Your task to perform on an android device: How do I get to the nearest Home Depot? Image 0: 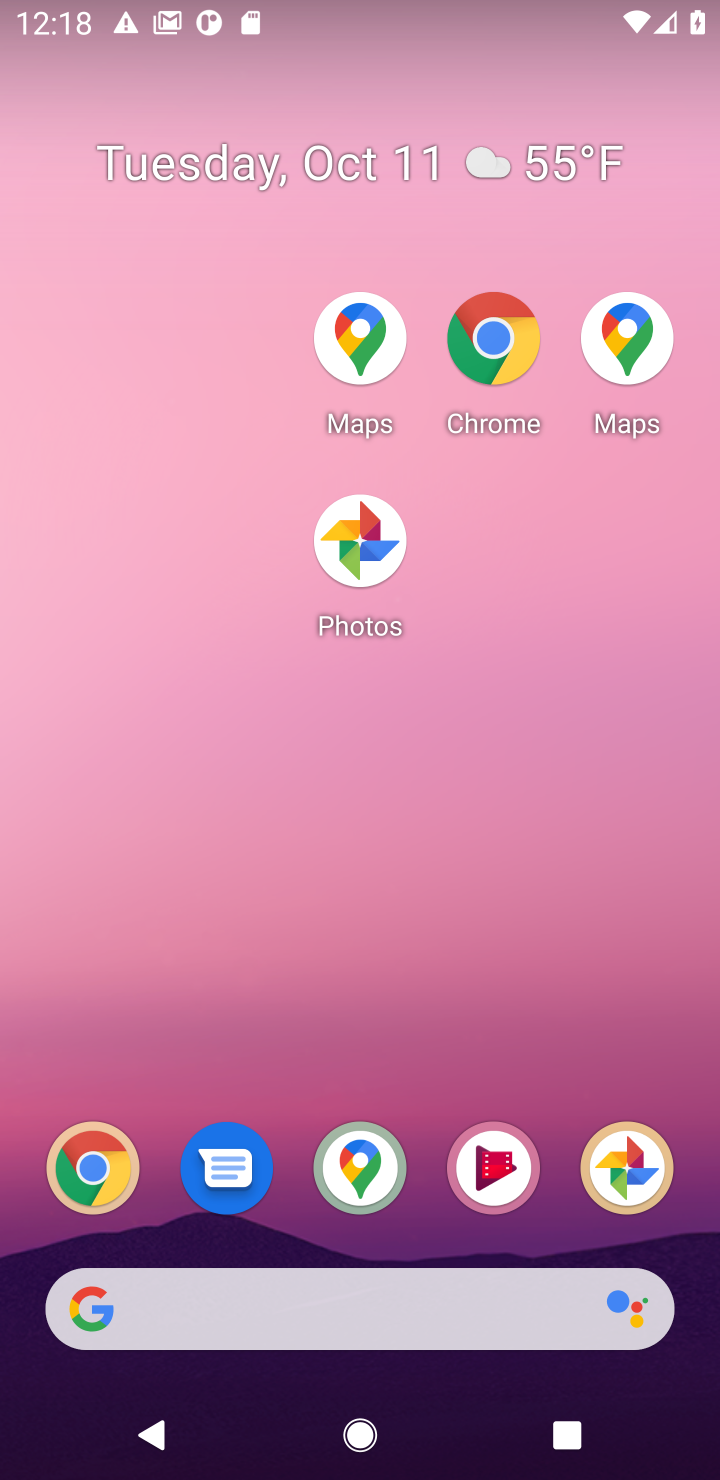
Step 0: drag from (438, 1055) to (411, 416)
Your task to perform on an android device: How do I get to the nearest Home Depot? Image 1: 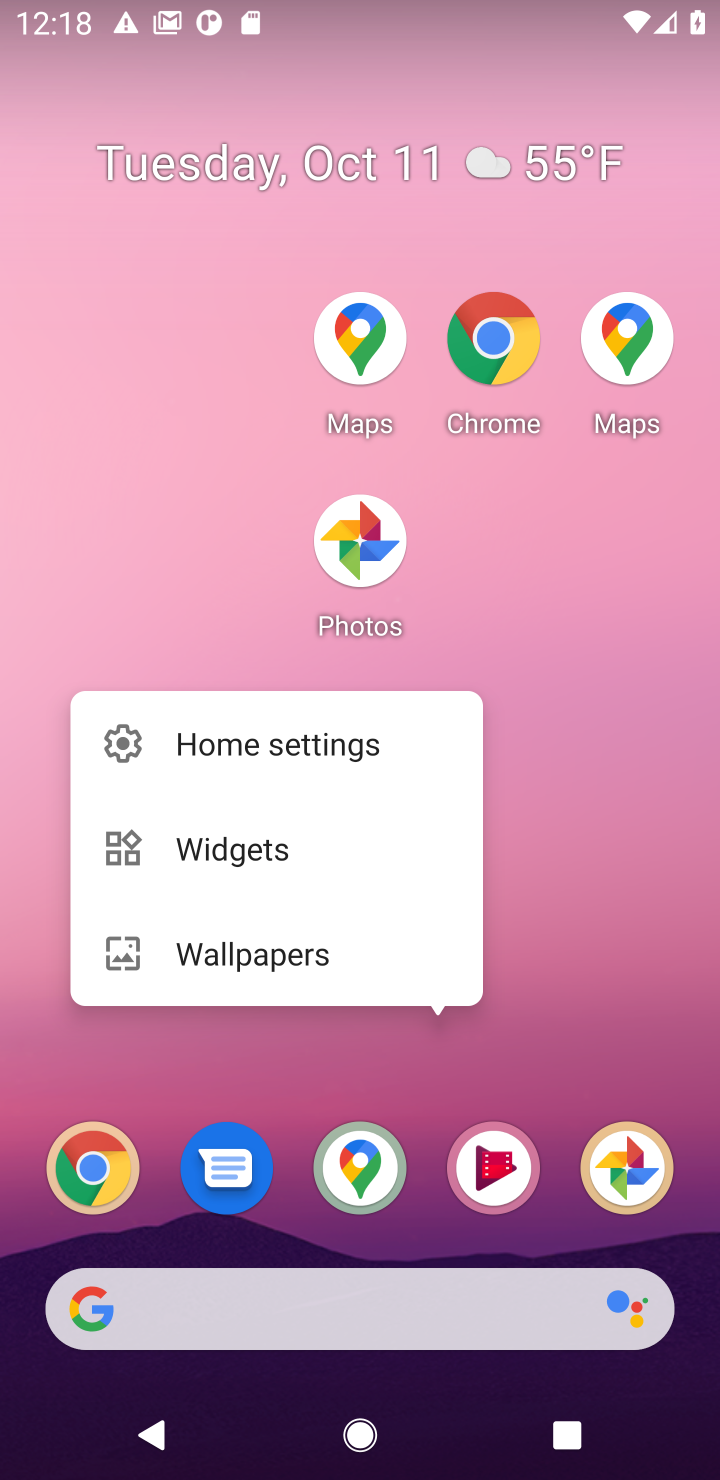
Step 1: click (609, 886)
Your task to perform on an android device: How do I get to the nearest Home Depot? Image 2: 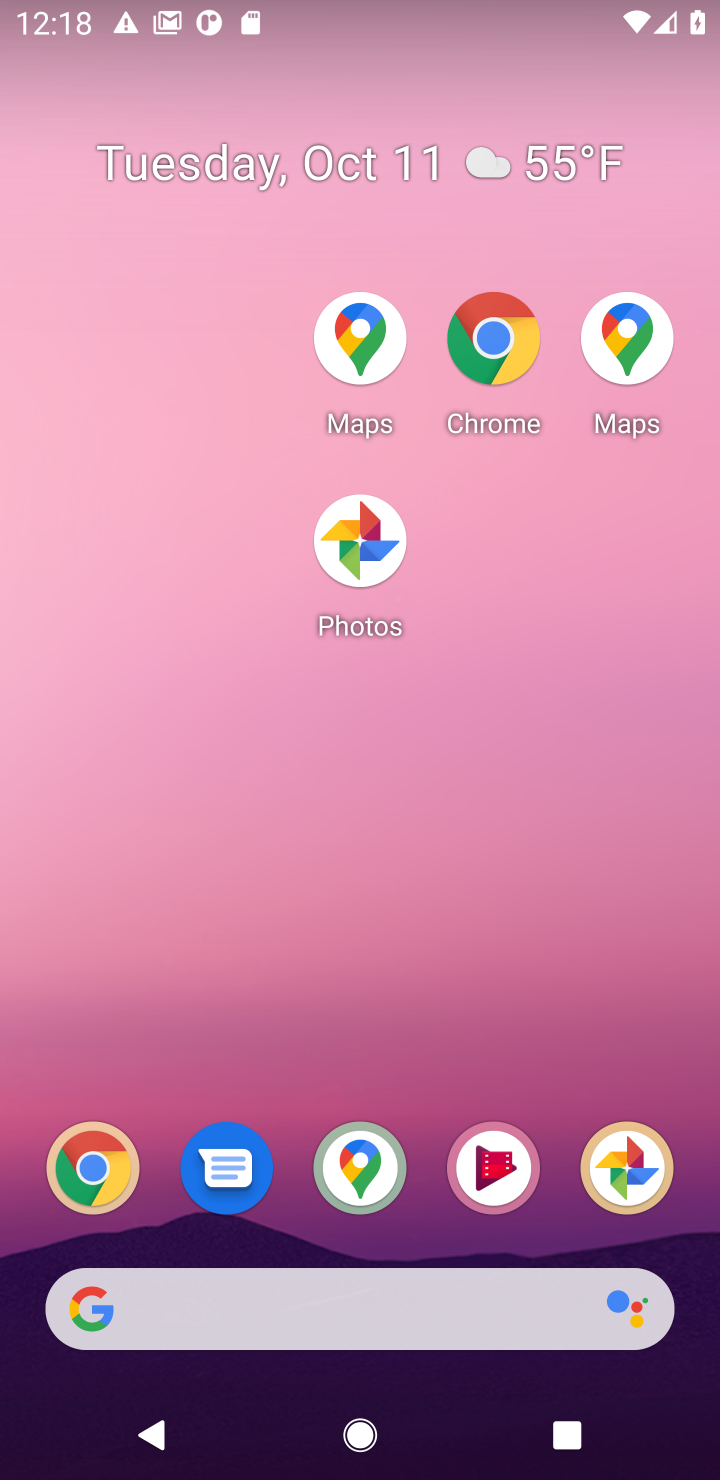
Step 2: click (455, 989)
Your task to perform on an android device: How do I get to the nearest Home Depot? Image 3: 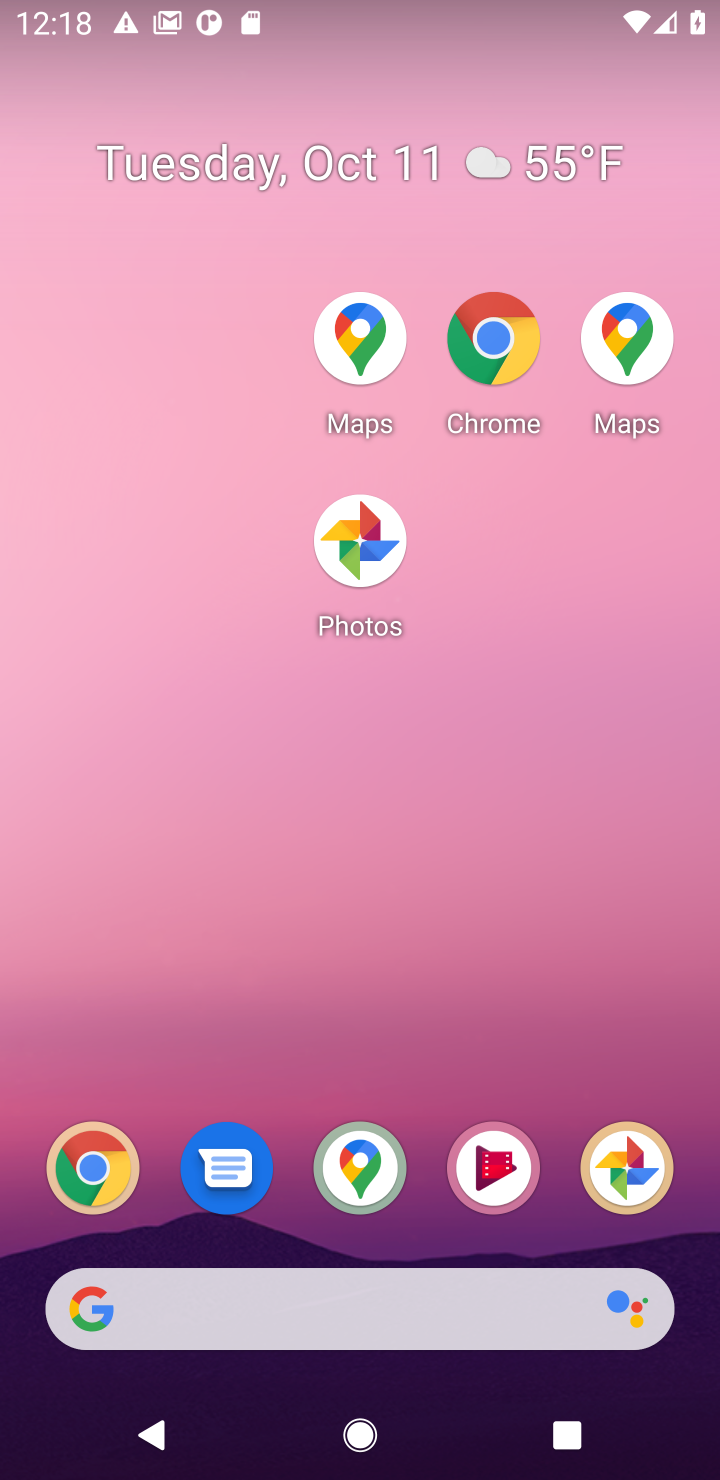
Step 3: click (455, 989)
Your task to perform on an android device: How do I get to the nearest Home Depot? Image 4: 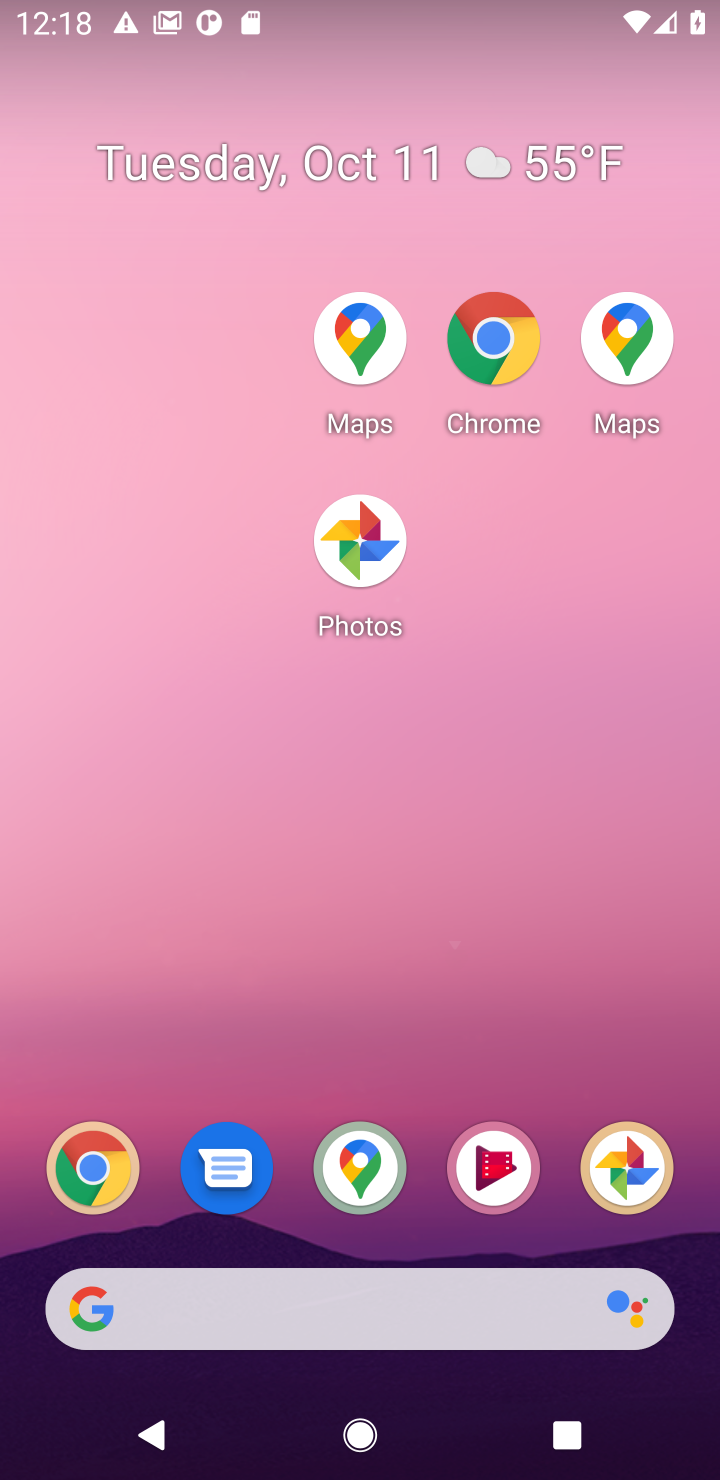
Step 4: drag from (393, 1037) to (515, 270)
Your task to perform on an android device: How do I get to the nearest Home Depot? Image 5: 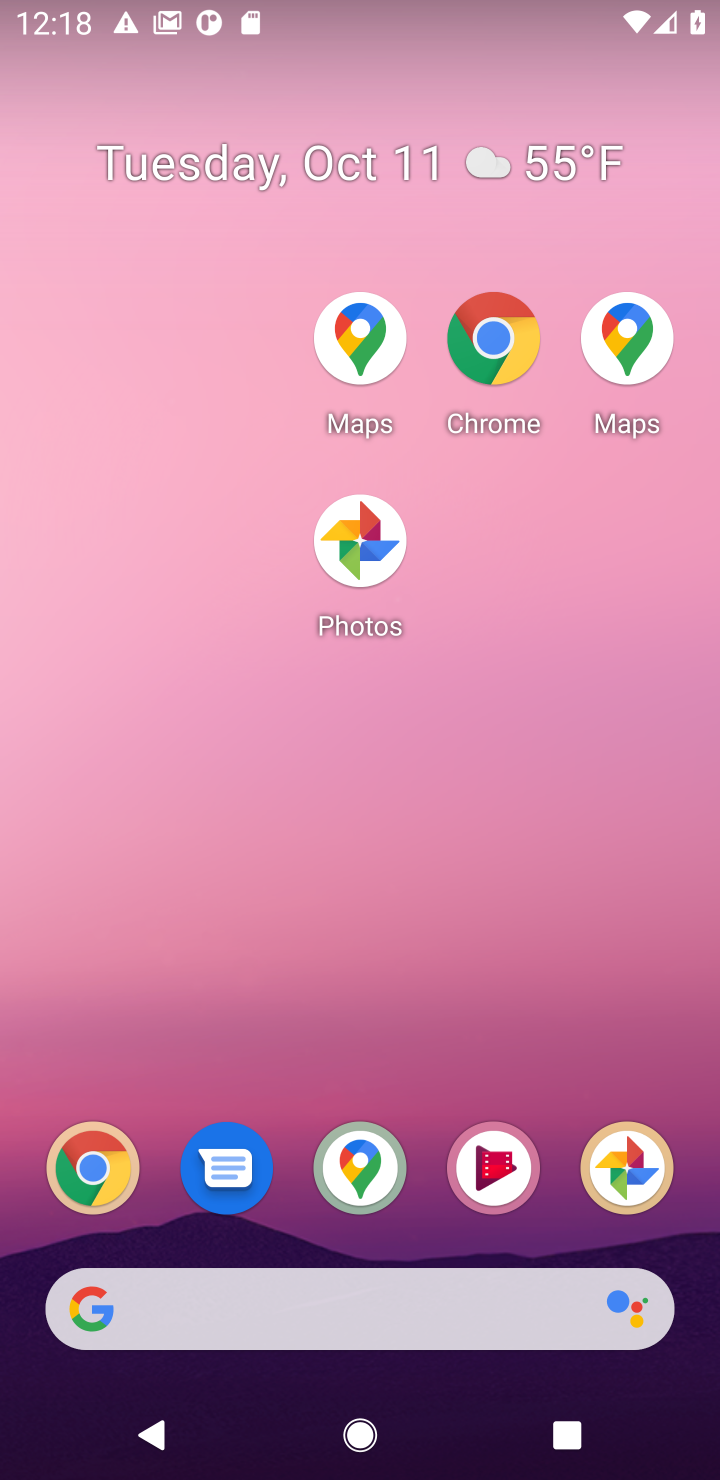
Step 5: drag from (489, 968) to (480, 369)
Your task to perform on an android device: How do I get to the nearest Home Depot? Image 6: 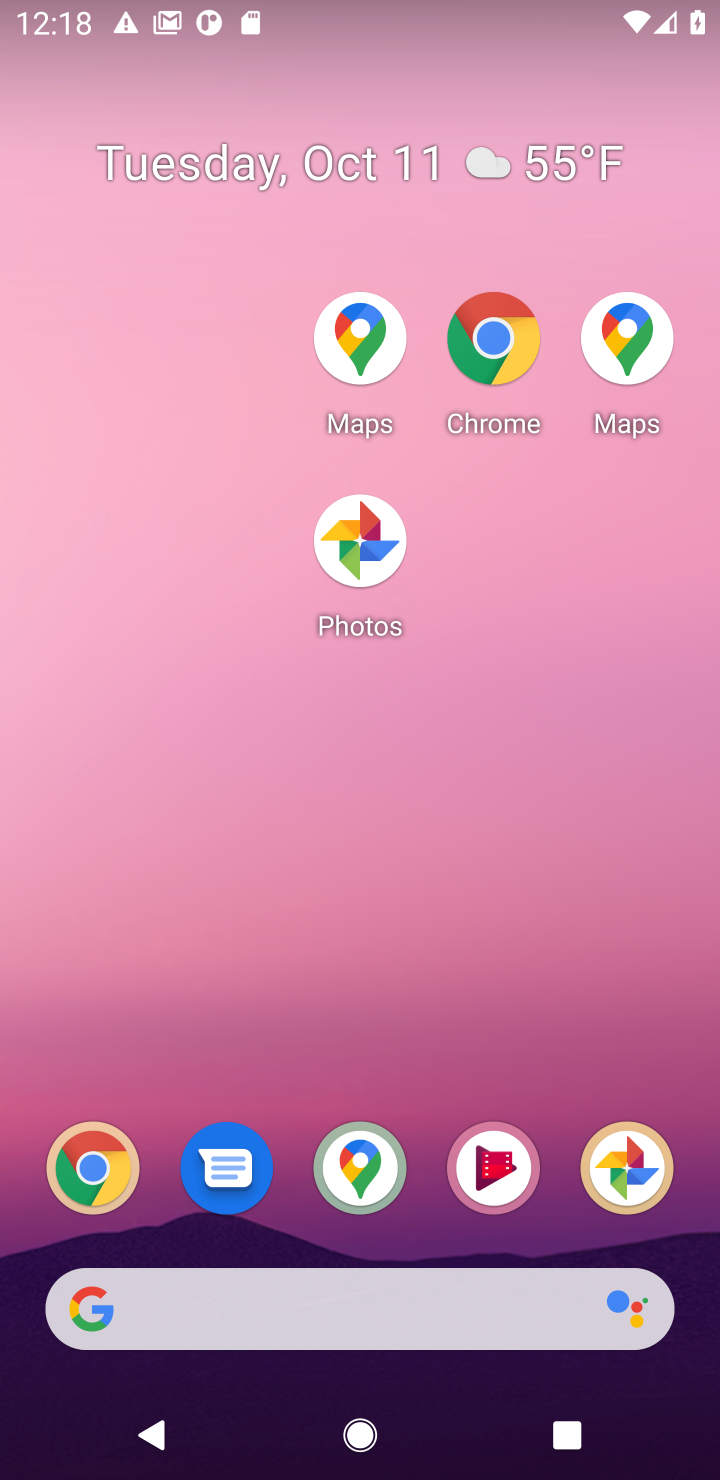
Step 6: drag from (445, 1013) to (485, 394)
Your task to perform on an android device: How do I get to the nearest Home Depot? Image 7: 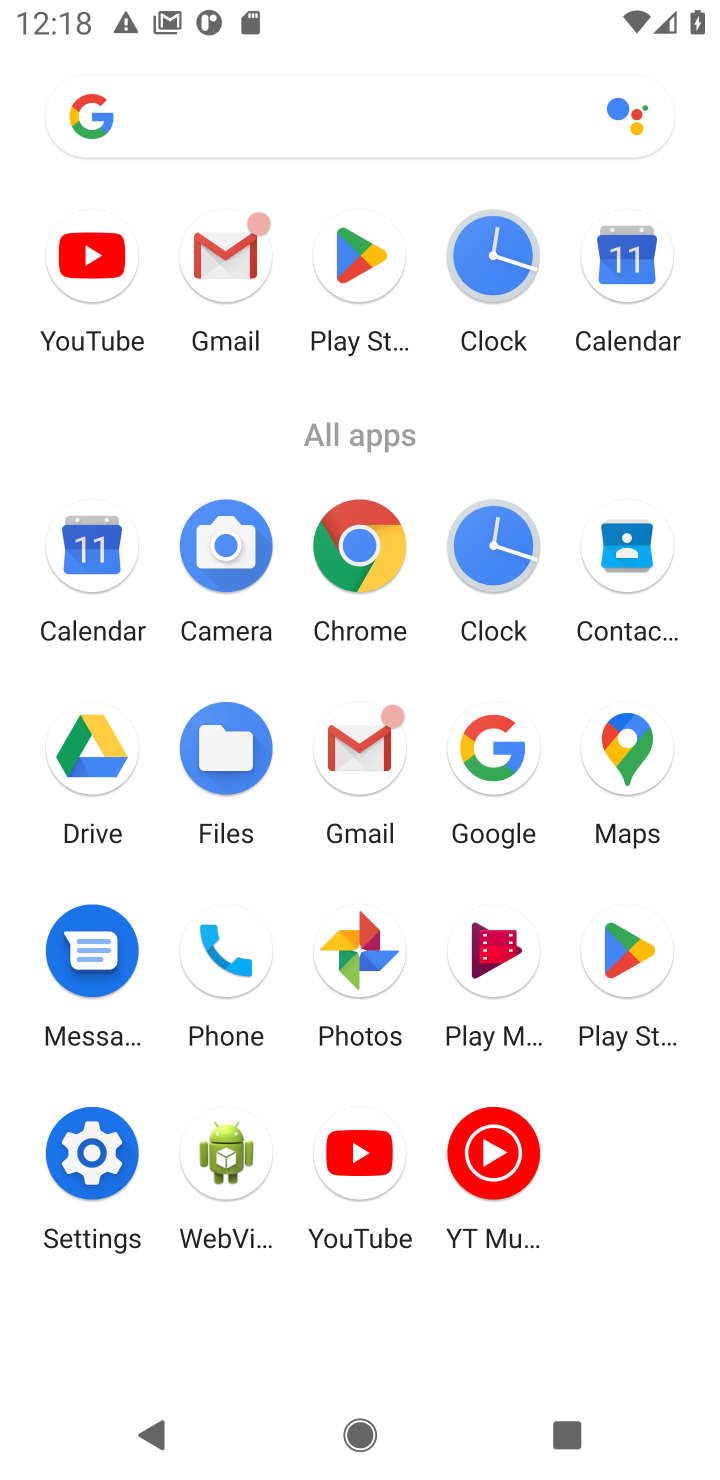
Step 7: click (487, 788)
Your task to perform on an android device: How do I get to the nearest Home Depot? Image 8: 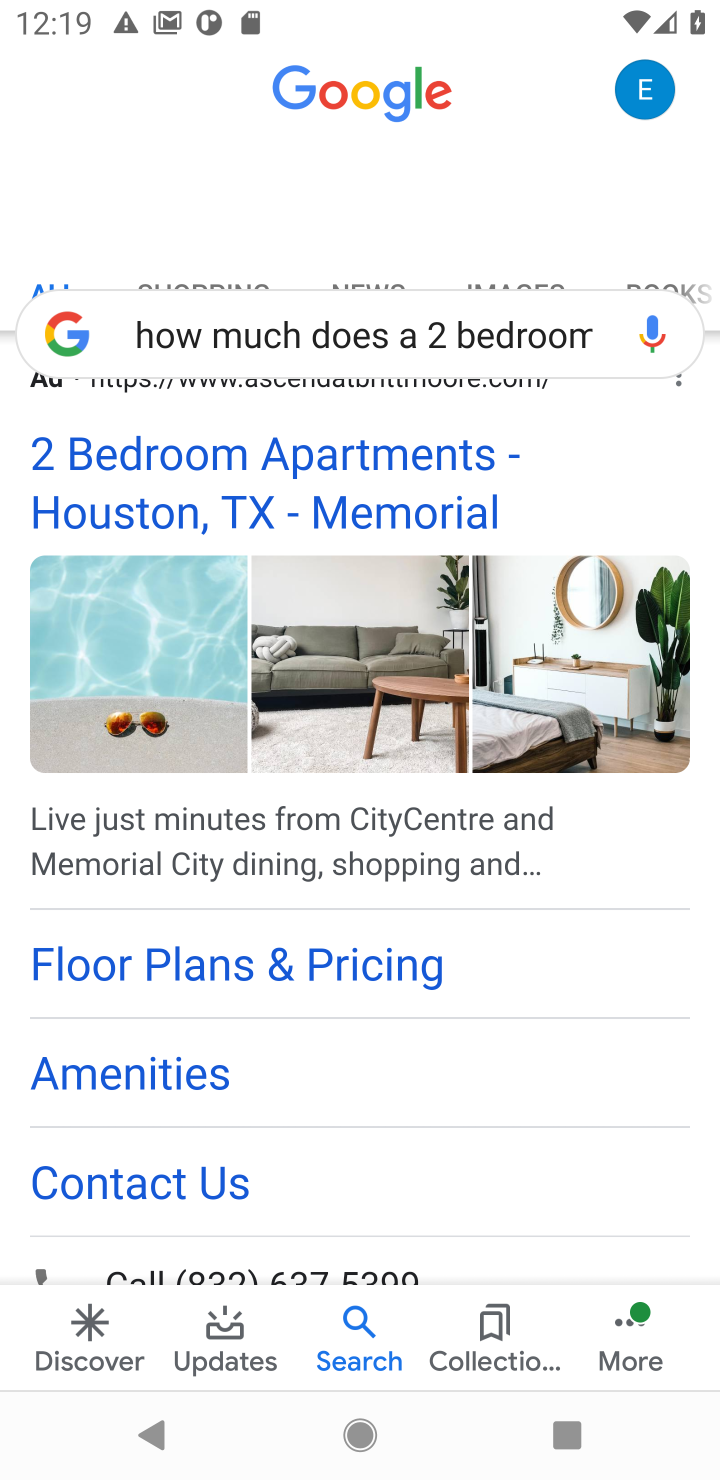
Step 8: click (497, 338)
Your task to perform on an android device: How do I get to the nearest Home Depot? Image 9: 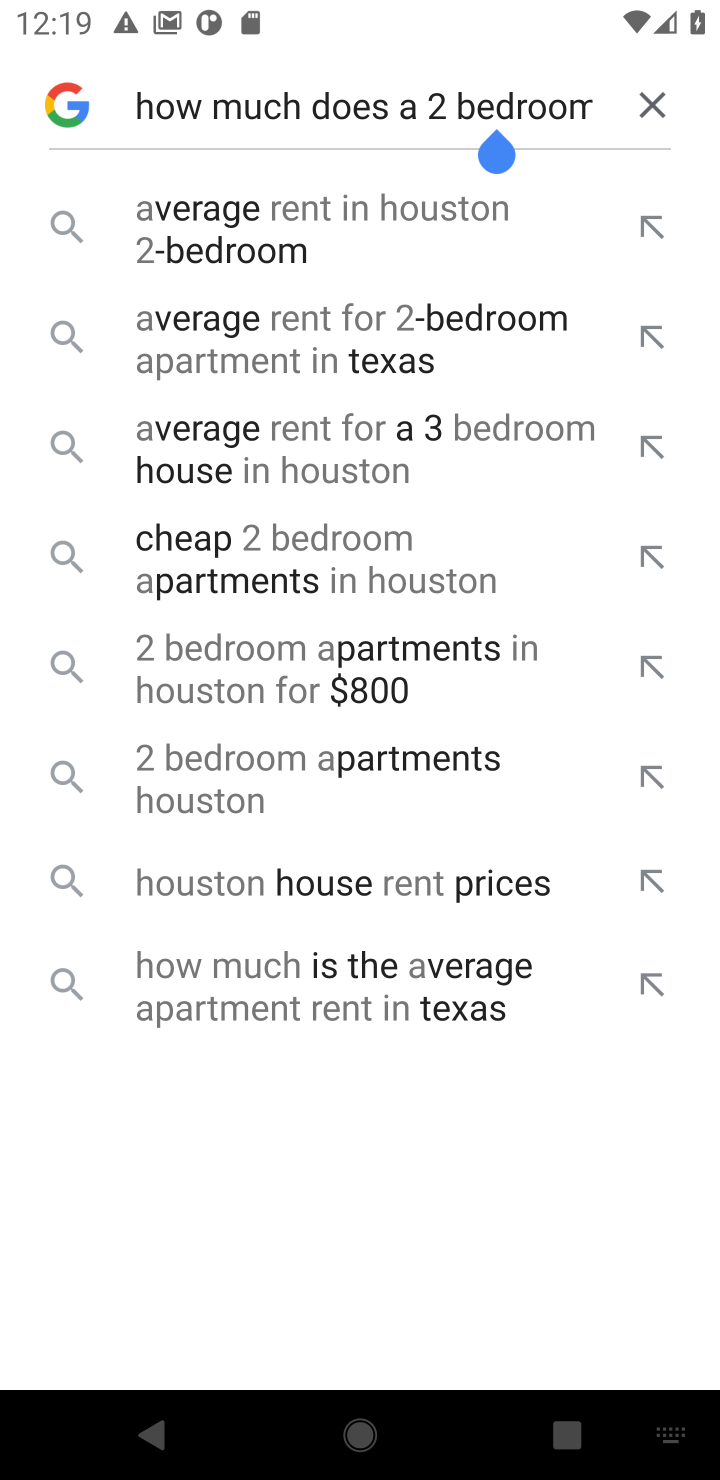
Step 9: click (652, 101)
Your task to perform on an android device: How do I get to the nearest Home Depot? Image 10: 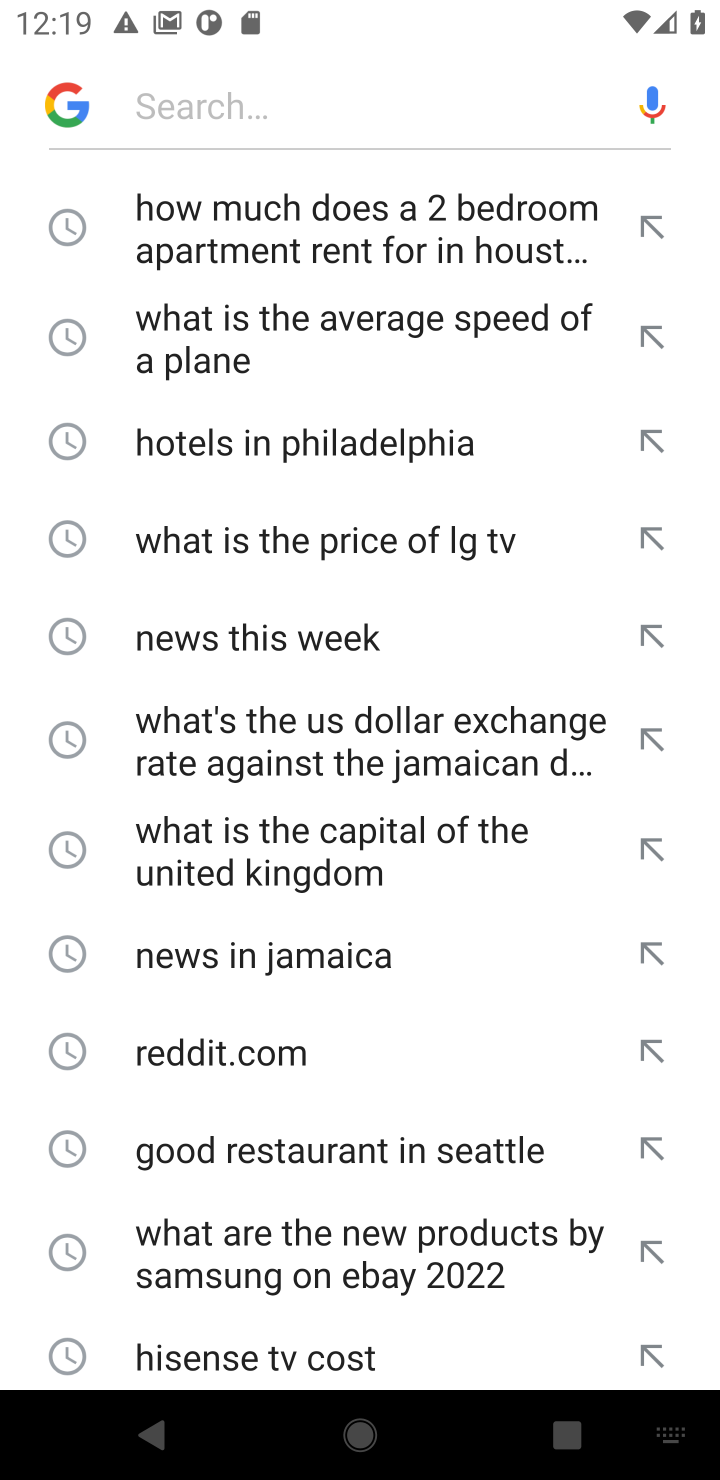
Step 10: type "nearest Home Depot"
Your task to perform on an android device: How do I get to the nearest Home Depot? Image 11: 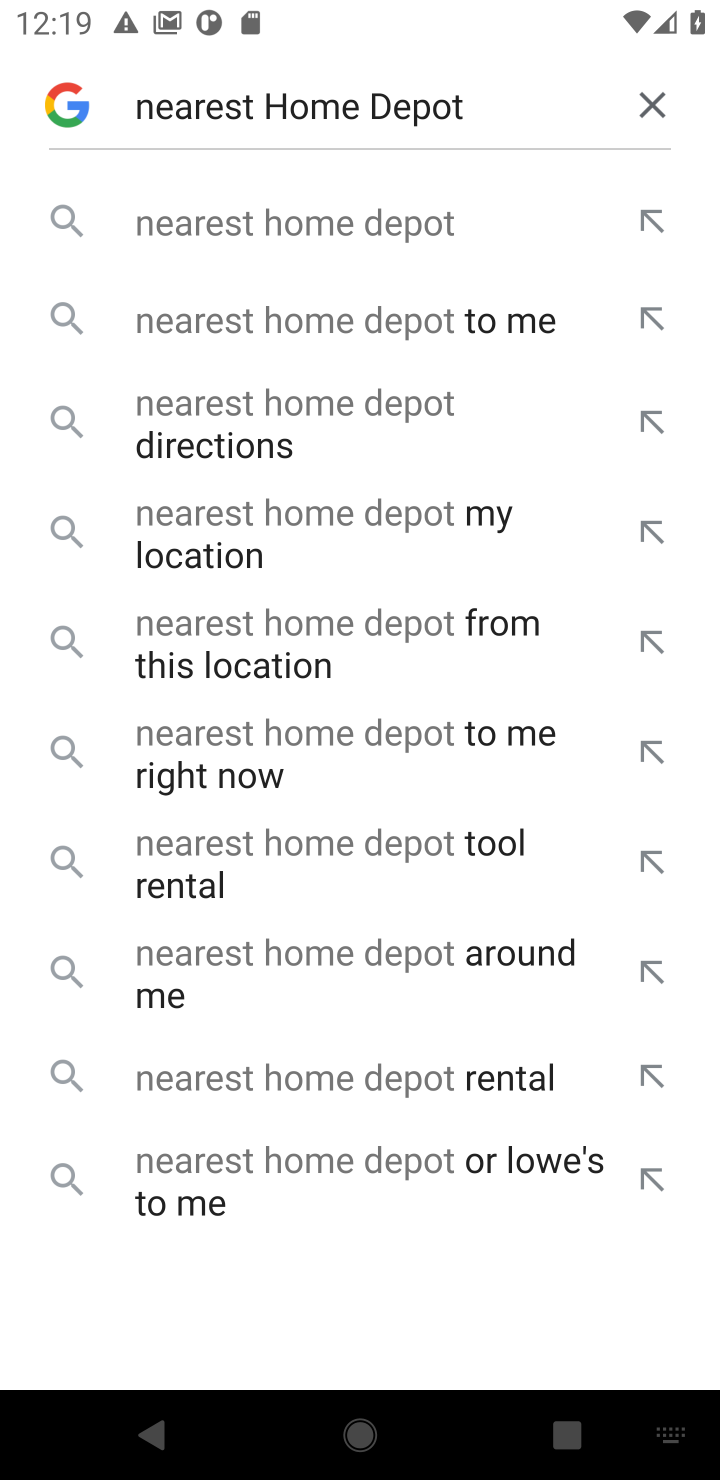
Step 11: click (454, 230)
Your task to perform on an android device: How do I get to the nearest Home Depot? Image 12: 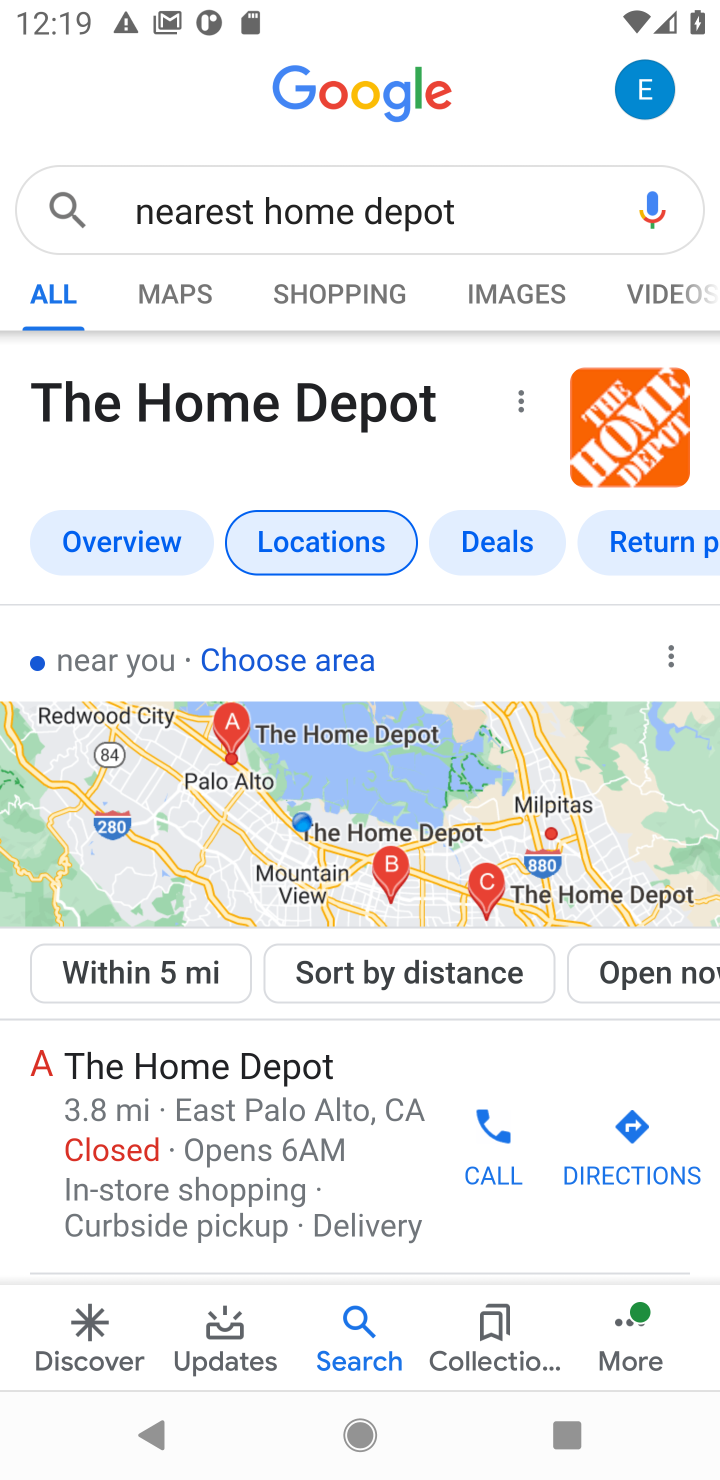
Step 12: drag from (484, 758) to (484, 319)
Your task to perform on an android device: How do I get to the nearest Home Depot? Image 13: 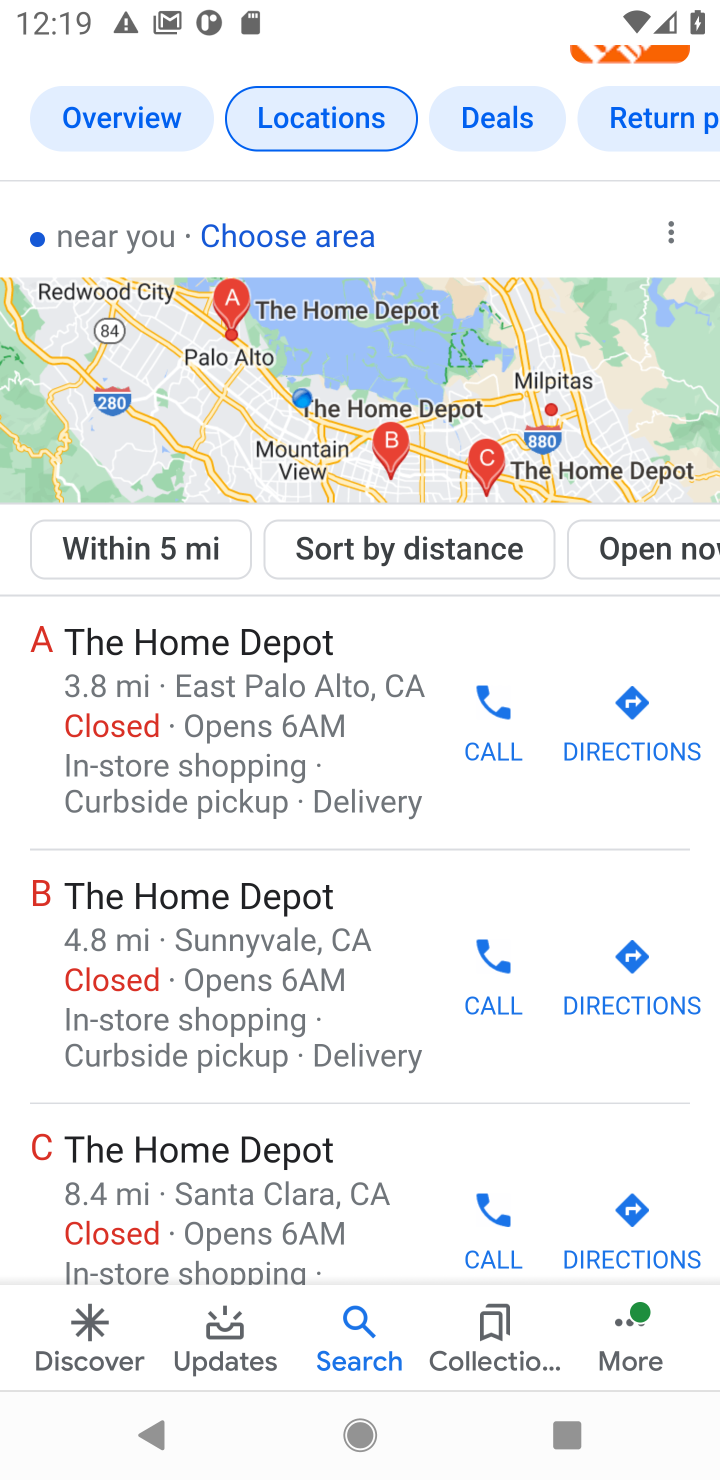
Step 13: click (628, 703)
Your task to perform on an android device: How do I get to the nearest Home Depot? Image 14: 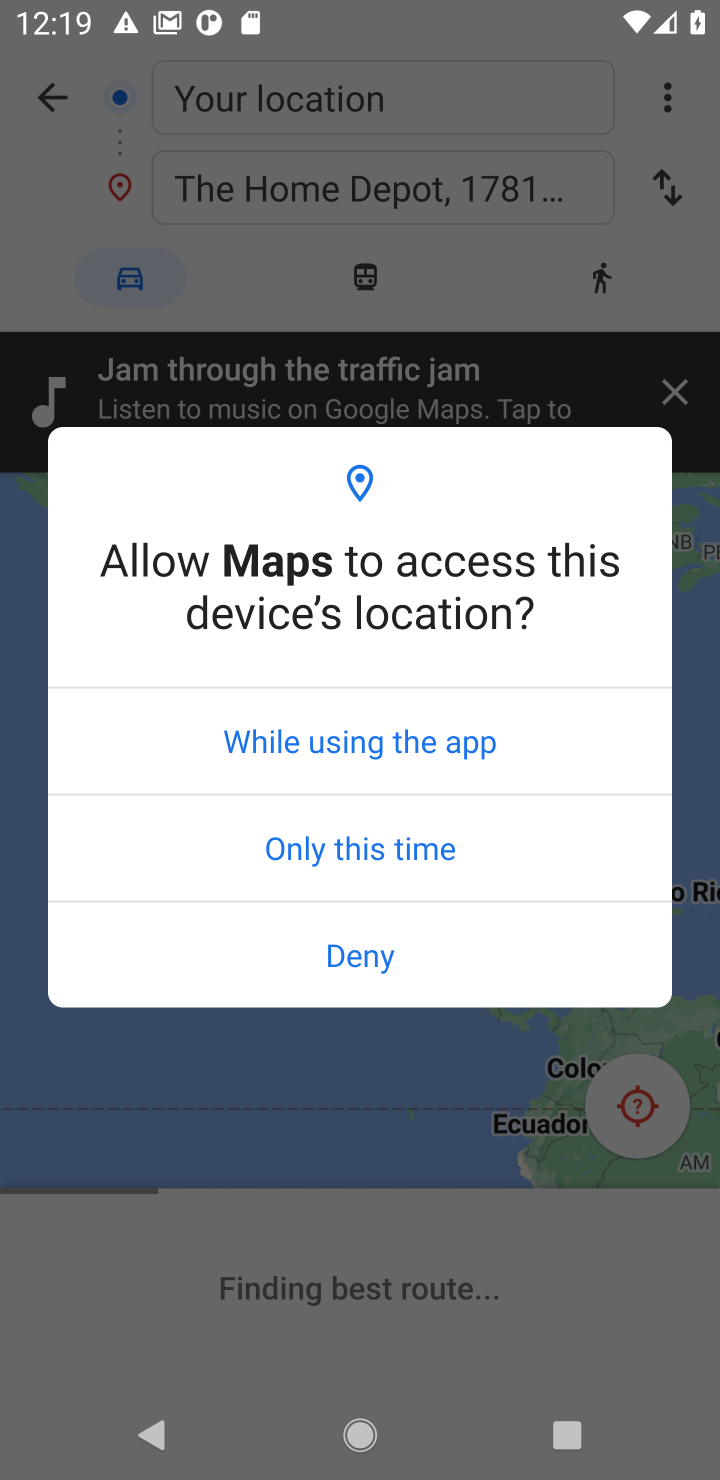
Step 14: click (440, 715)
Your task to perform on an android device: How do I get to the nearest Home Depot? Image 15: 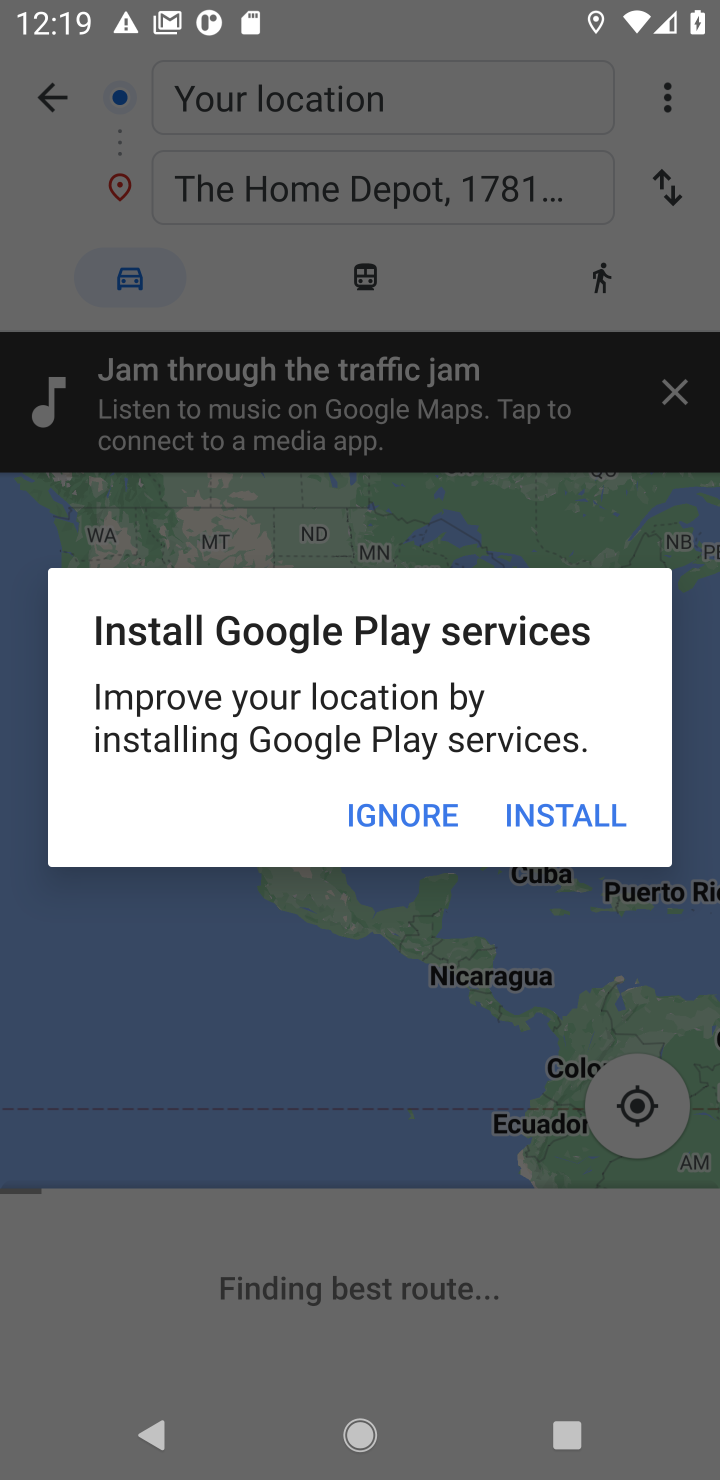
Step 15: click (434, 789)
Your task to perform on an android device: How do I get to the nearest Home Depot? Image 16: 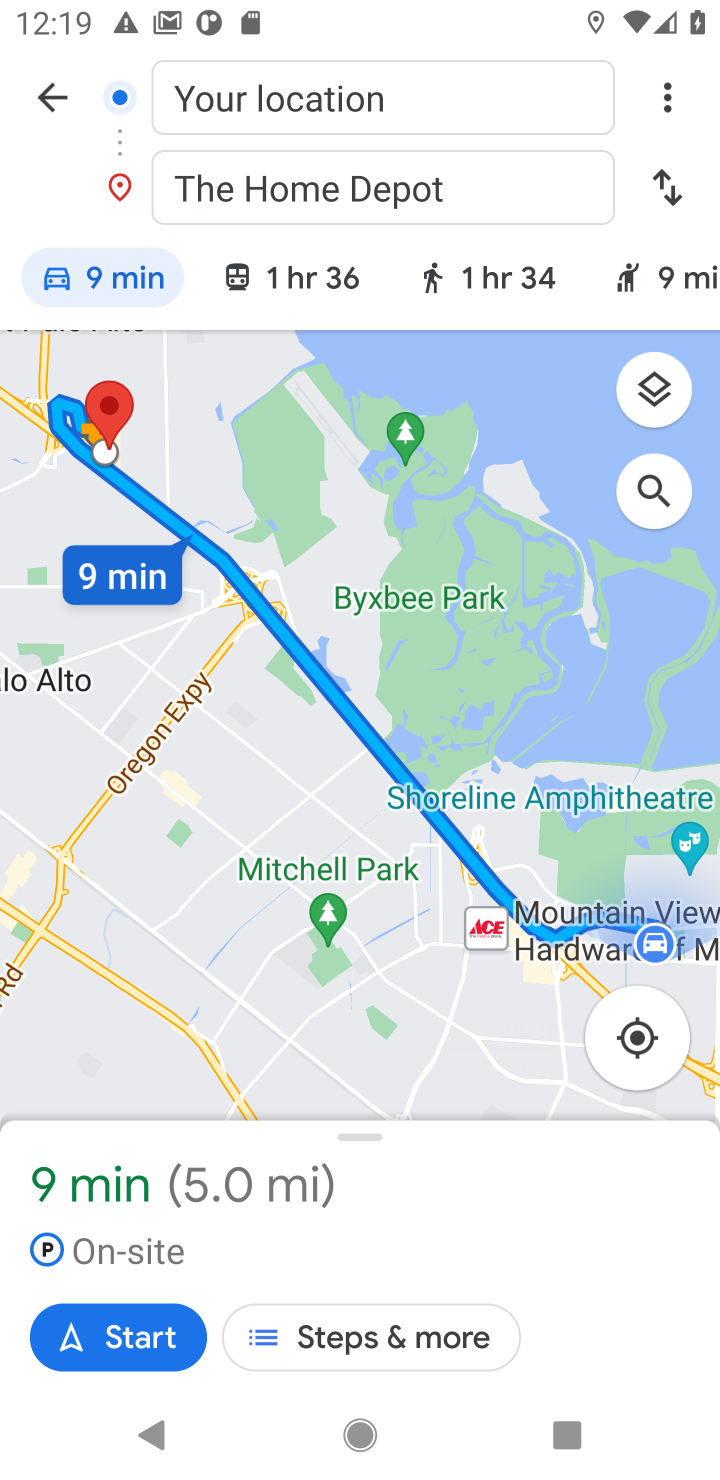
Step 16: task complete